Your task to perform on an android device: turn off wifi Image 0: 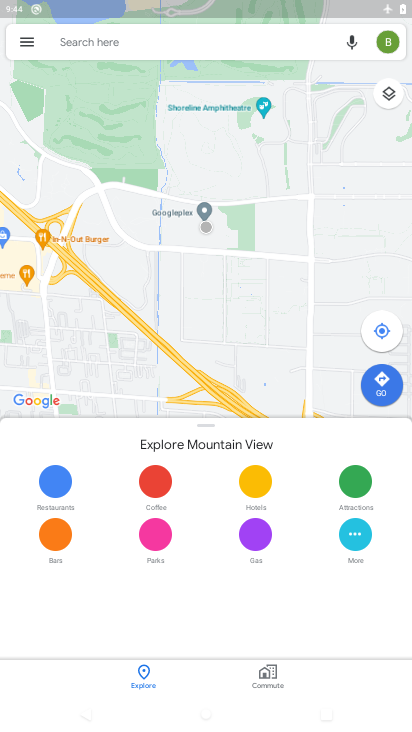
Step 0: press home button
Your task to perform on an android device: turn off wifi Image 1: 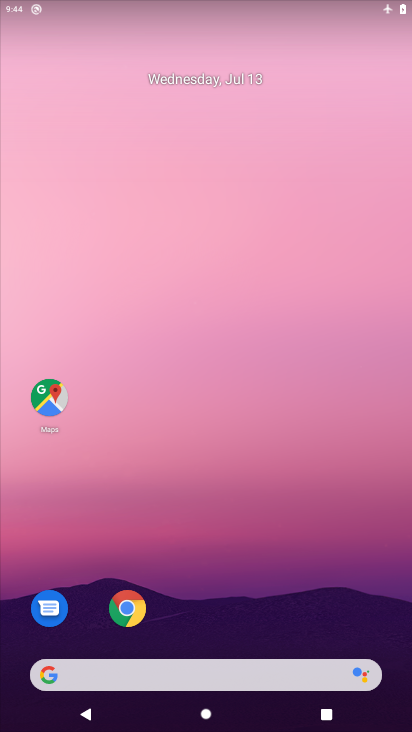
Step 1: click (43, 705)
Your task to perform on an android device: turn off wifi Image 2: 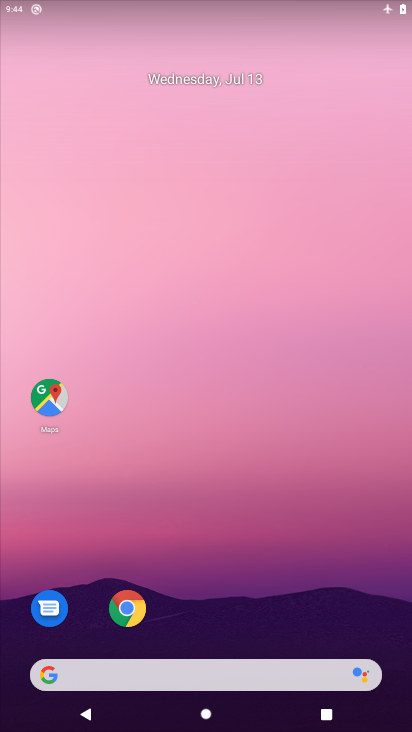
Step 2: drag from (46, 707) to (288, 16)
Your task to perform on an android device: turn off wifi Image 3: 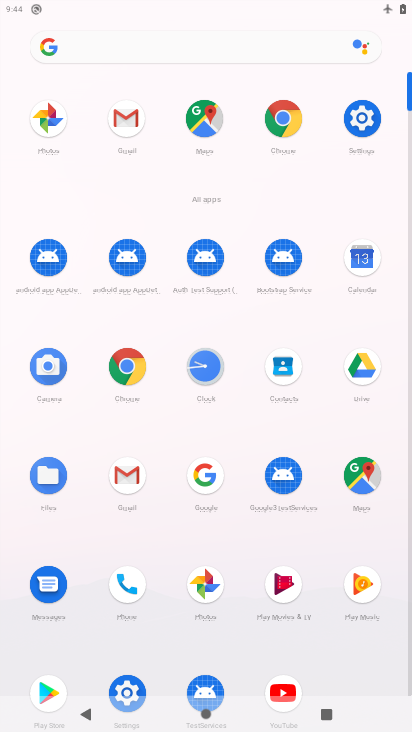
Step 3: click (125, 673)
Your task to perform on an android device: turn off wifi Image 4: 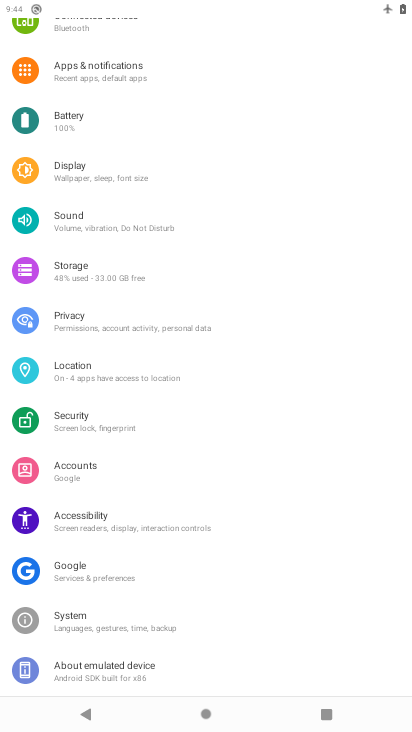
Step 4: drag from (182, 56) to (182, 375)
Your task to perform on an android device: turn off wifi Image 5: 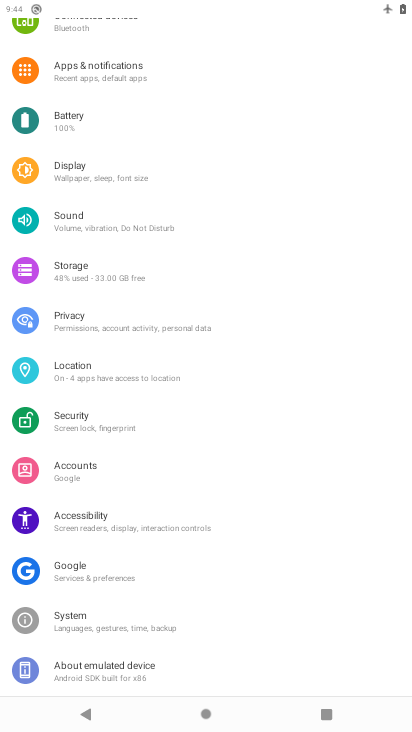
Step 5: drag from (138, 64) to (120, 375)
Your task to perform on an android device: turn off wifi Image 6: 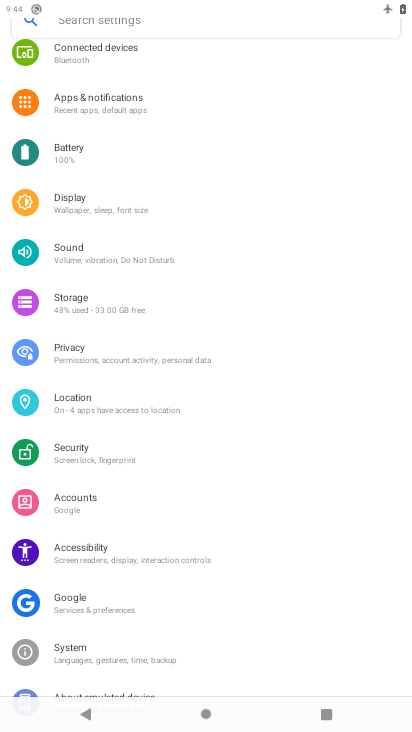
Step 6: drag from (174, 48) to (174, 542)
Your task to perform on an android device: turn off wifi Image 7: 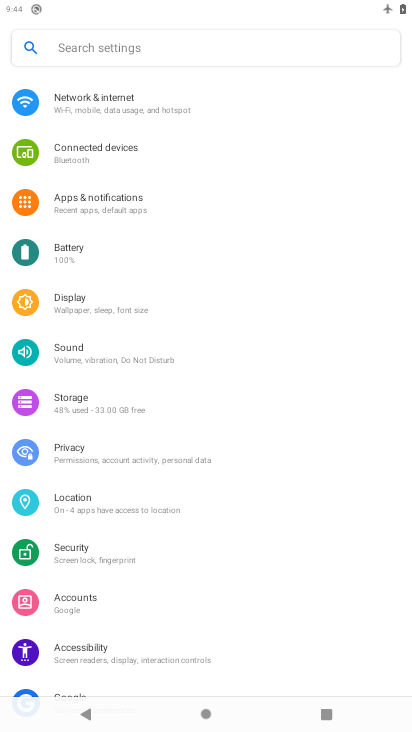
Step 7: click (124, 103)
Your task to perform on an android device: turn off wifi Image 8: 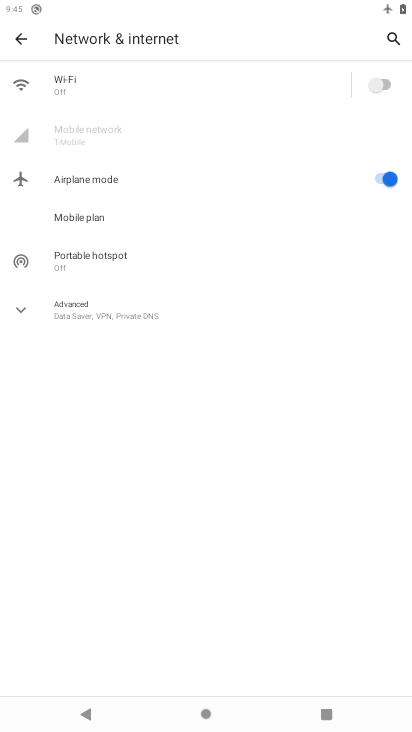
Step 8: click (382, 81)
Your task to perform on an android device: turn off wifi Image 9: 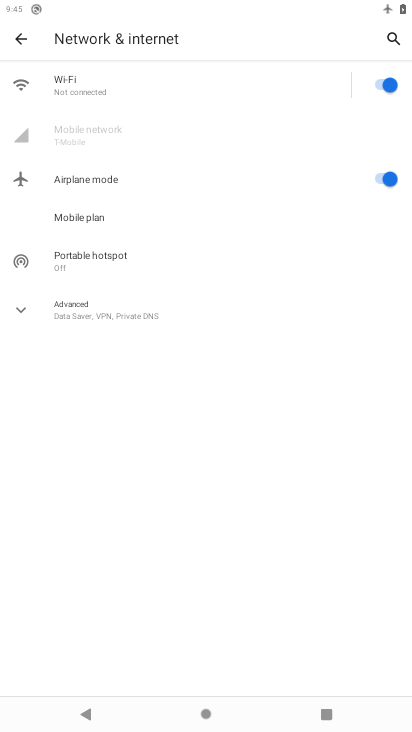
Step 9: task complete